Your task to perform on an android device: Open Wikipedia Image 0: 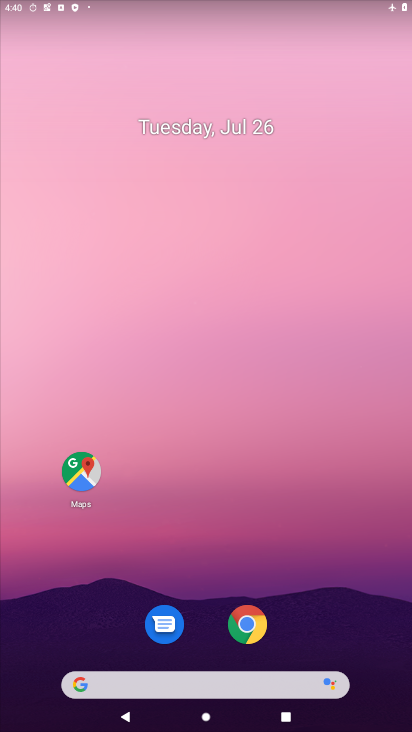
Step 0: drag from (268, 681) to (336, 8)
Your task to perform on an android device: Open Wikipedia Image 1: 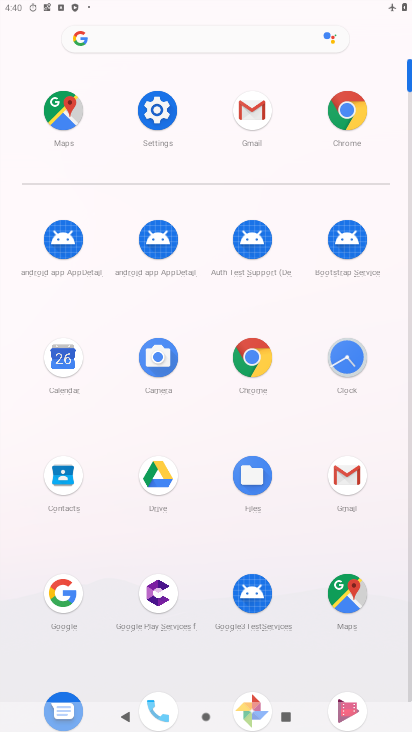
Step 1: click (254, 350)
Your task to perform on an android device: Open Wikipedia Image 2: 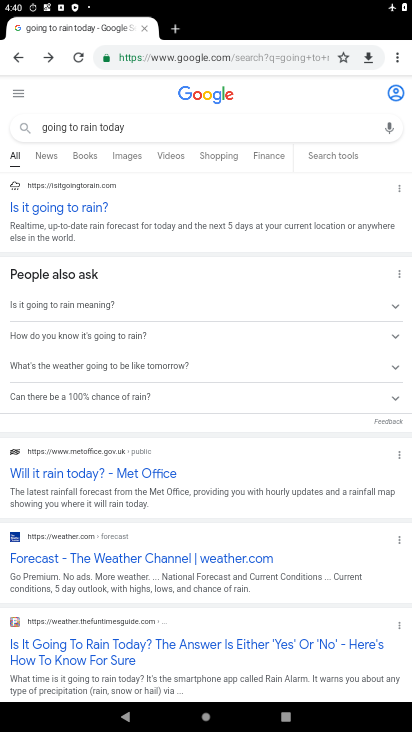
Step 2: click (400, 52)
Your task to perform on an android device: Open Wikipedia Image 3: 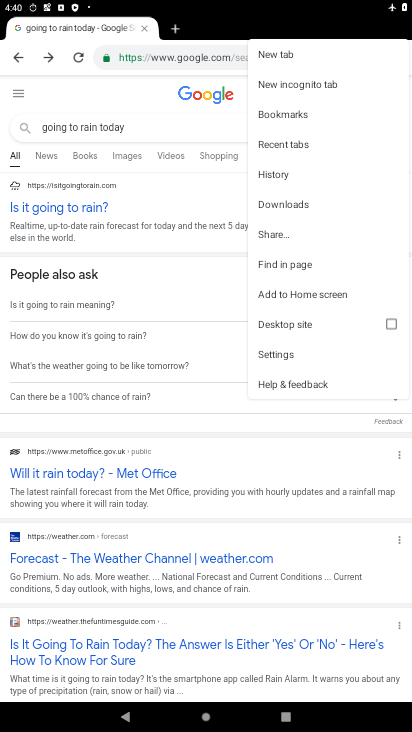
Step 3: click (303, 58)
Your task to perform on an android device: Open Wikipedia Image 4: 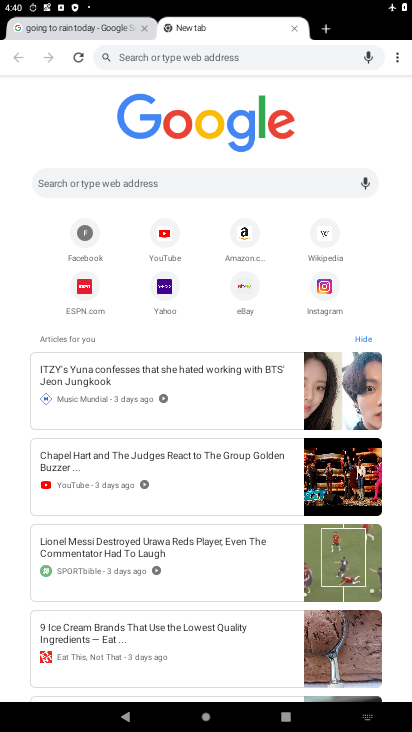
Step 4: click (319, 238)
Your task to perform on an android device: Open Wikipedia Image 5: 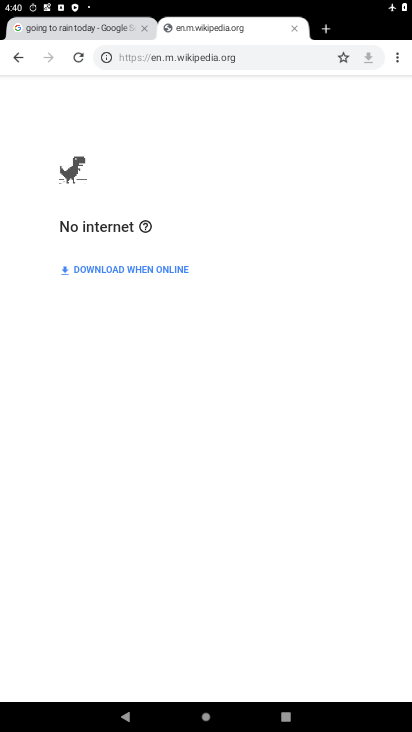
Step 5: task complete